Your task to perform on an android device: Is it going to rain this weekend? Image 0: 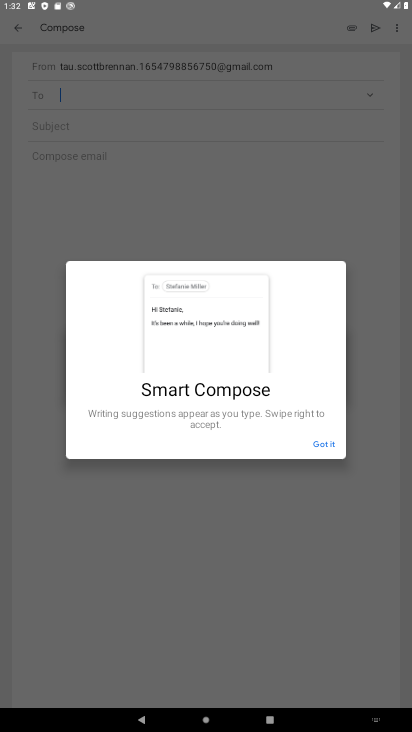
Step 0: press home button
Your task to perform on an android device: Is it going to rain this weekend? Image 1: 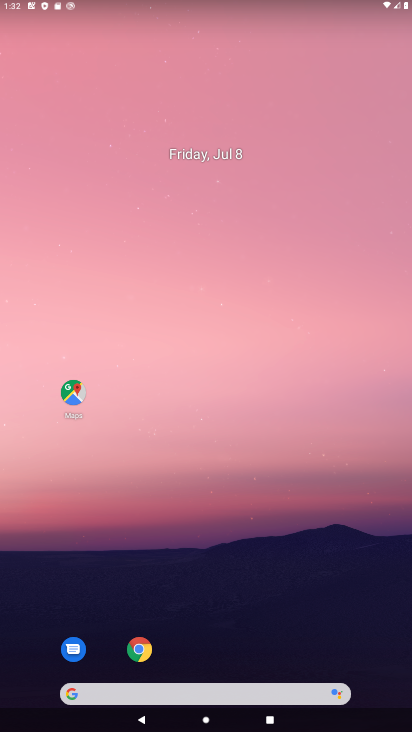
Step 1: click (95, 694)
Your task to perform on an android device: Is it going to rain this weekend? Image 2: 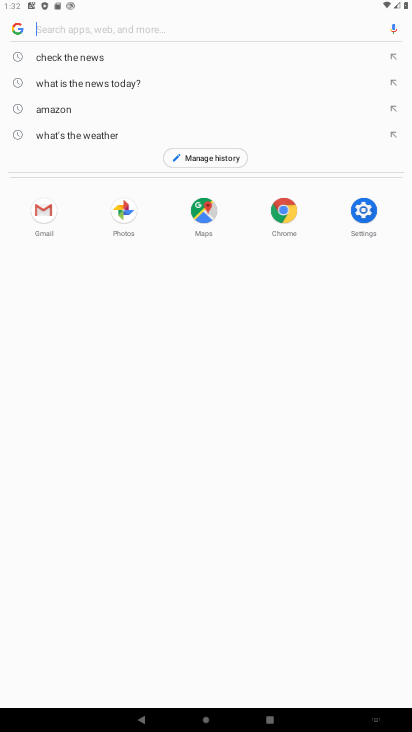
Step 2: type "Is it going to rain this weekend?"
Your task to perform on an android device: Is it going to rain this weekend? Image 3: 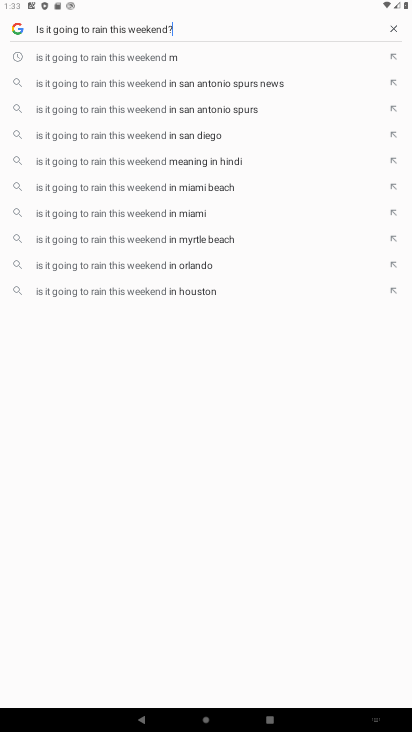
Step 3: type "   "
Your task to perform on an android device: Is it going to rain this weekend? Image 4: 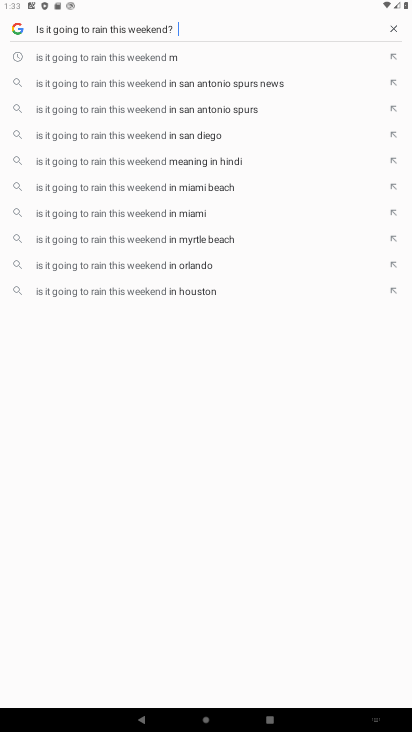
Step 4: task complete